Your task to perform on an android device: Open Chrome and go to settings Image 0: 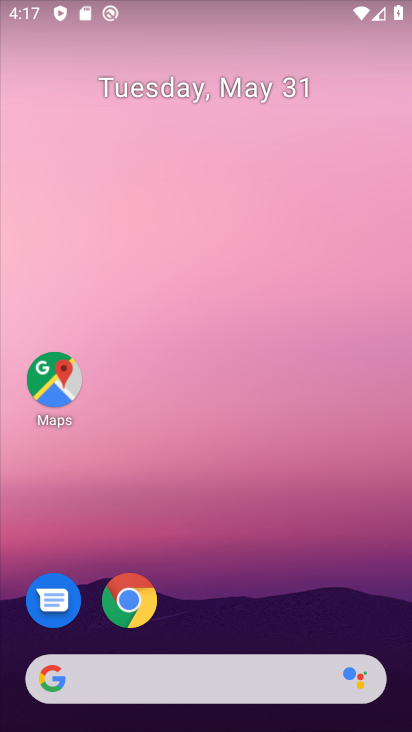
Step 0: click (127, 611)
Your task to perform on an android device: Open Chrome and go to settings Image 1: 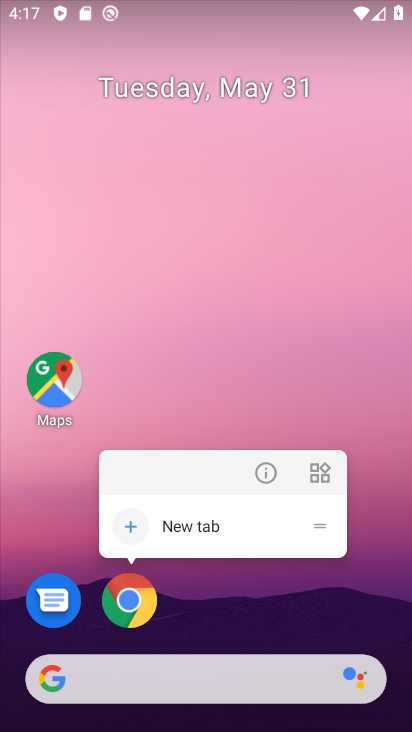
Step 1: click (144, 614)
Your task to perform on an android device: Open Chrome and go to settings Image 2: 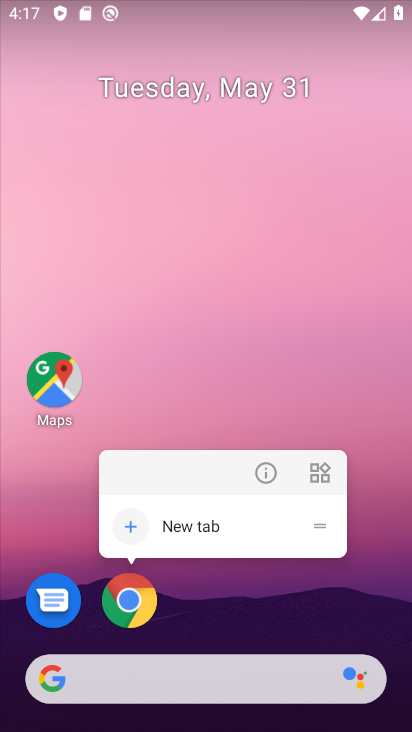
Step 2: click (140, 612)
Your task to perform on an android device: Open Chrome and go to settings Image 3: 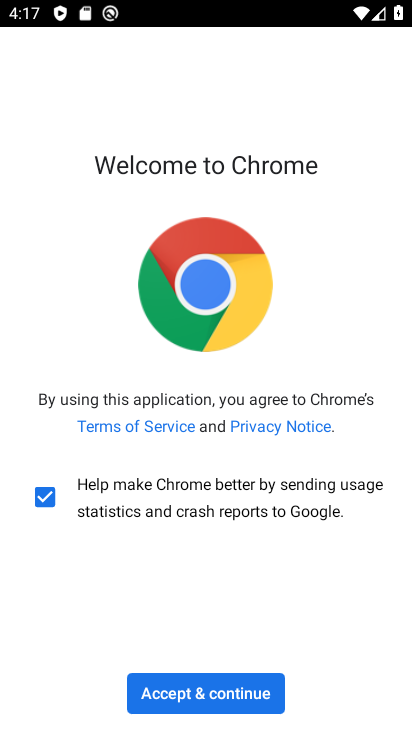
Step 3: click (214, 699)
Your task to perform on an android device: Open Chrome and go to settings Image 4: 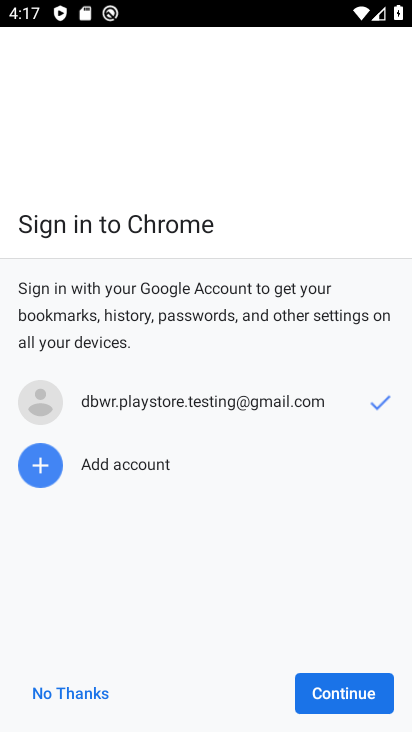
Step 4: click (386, 713)
Your task to perform on an android device: Open Chrome and go to settings Image 5: 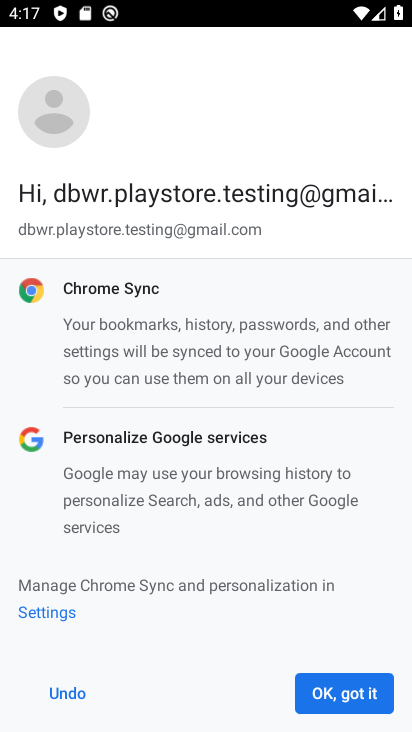
Step 5: click (377, 712)
Your task to perform on an android device: Open Chrome and go to settings Image 6: 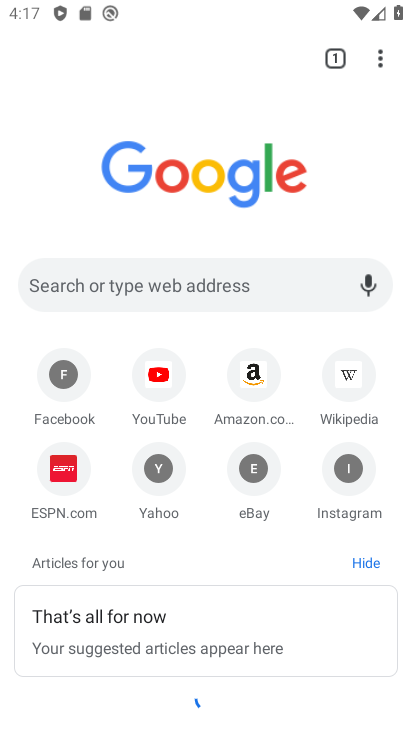
Step 6: task complete